Your task to perform on an android device: change keyboard looks Image 0: 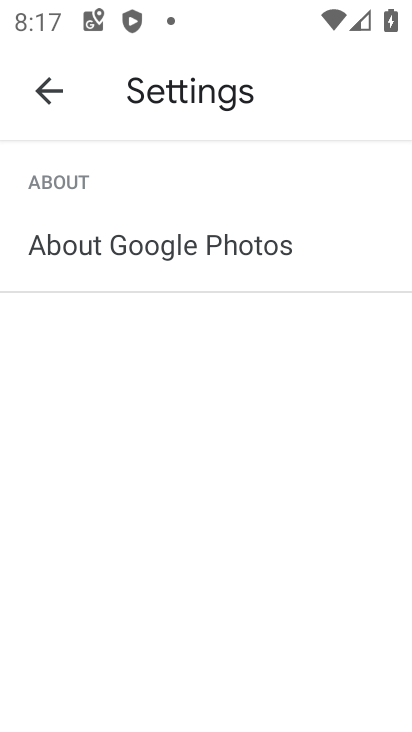
Step 0: press home button
Your task to perform on an android device: change keyboard looks Image 1: 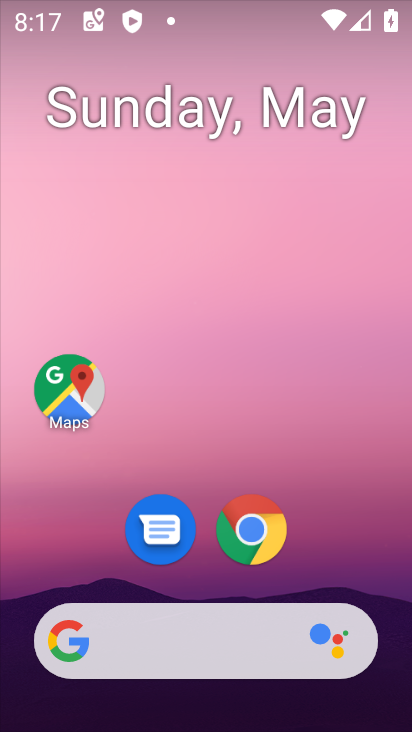
Step 1: drag from (359, 598) to (367, 4)
Your task to perform on an android device: change keyboard looks Image 2: 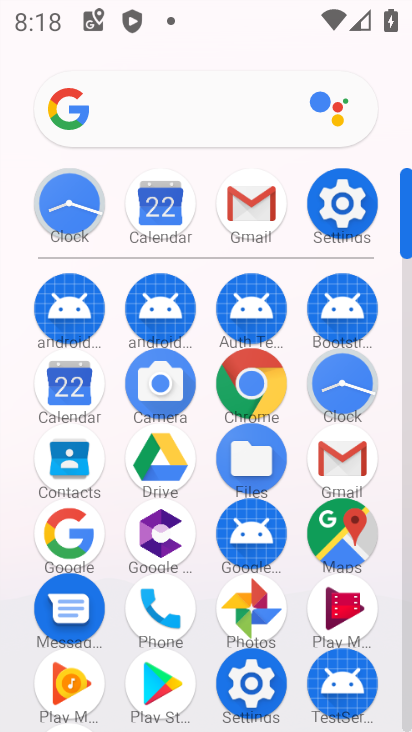
Step 2: click (344, 212)
Your task to perform on an android device: change keyboard looks Image 3: 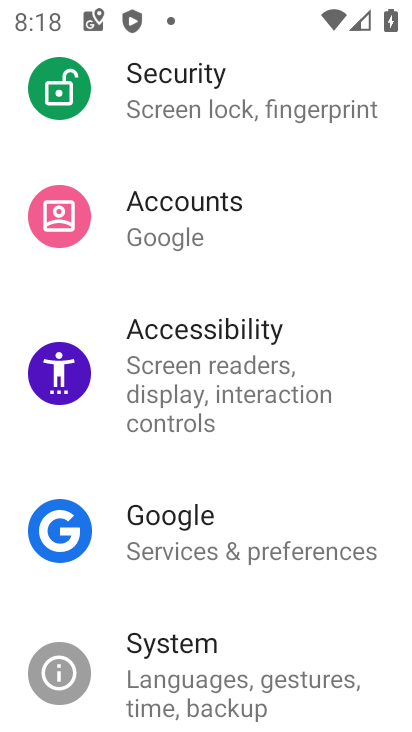
Step 3: click (188, 684)
Your task to perform on an android device: change keyboard looks Image 4: 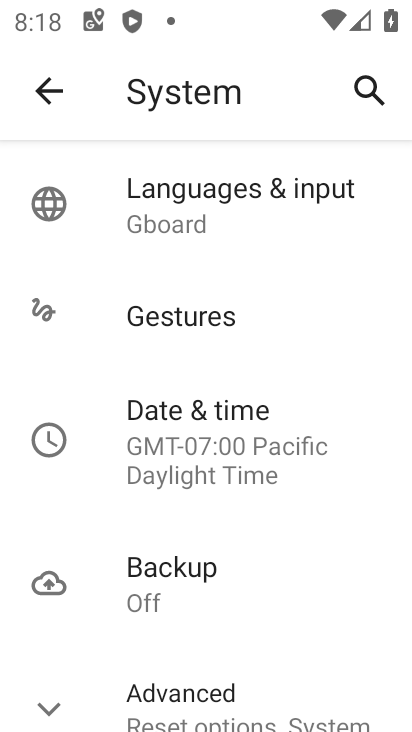
Step 4: click (189, 203)
Your task to perform on an android device: change keyboard looks Image 5: 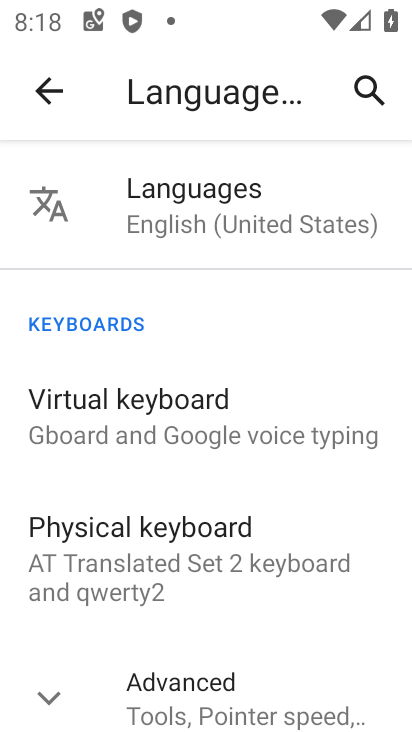
Step 5: click (177, 403)
Your task to perform on an android device: change keyboard looks Image 6: 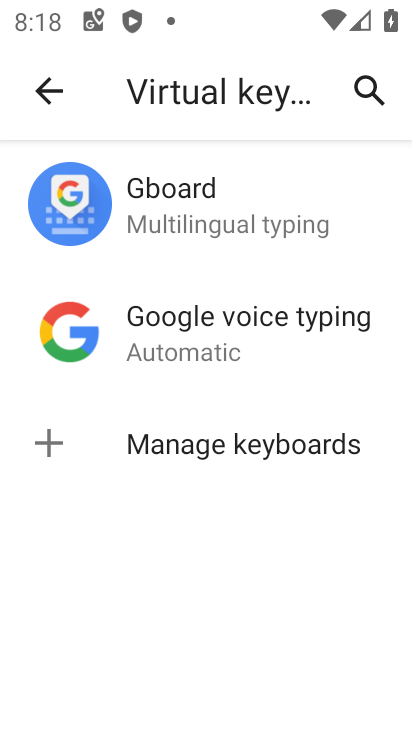
Step 6: click (147, 212)
Your task to perform on an android device: change keyboard looks Image 7: 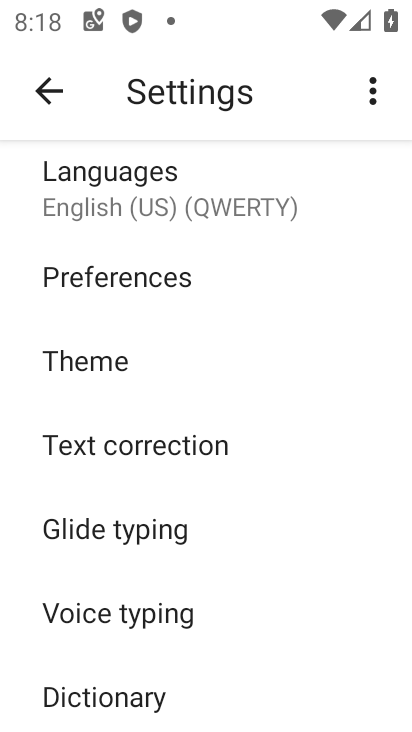
Step 7: click (82, 373)
Your task to perform on an android device: change keyboard looks Image 8: 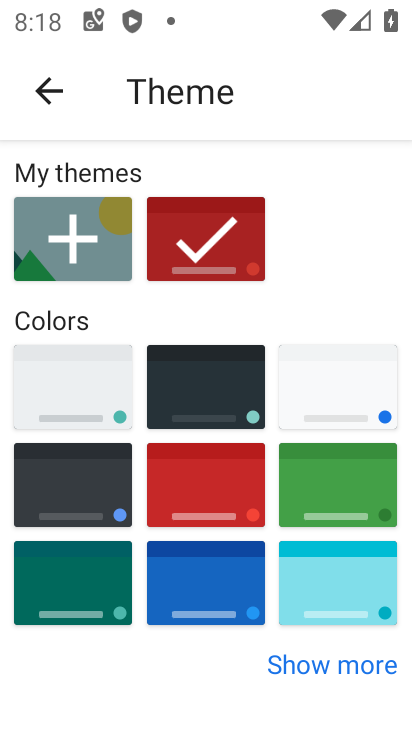
Step 8: click (313, 571)
Your task to perform on an android device: change keyboard looks Image 9: 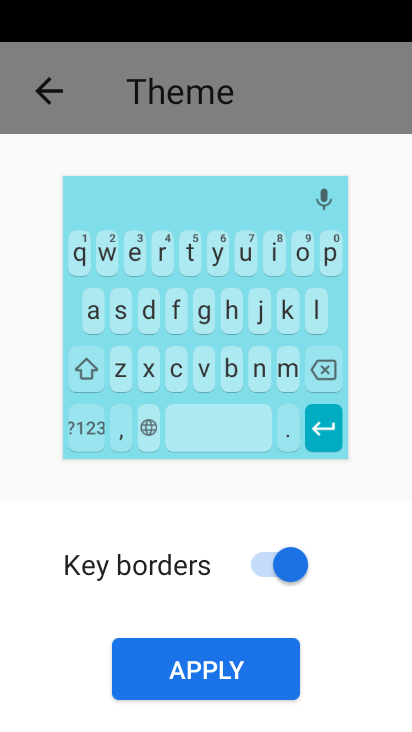
Step 9: click (243, 671)
Your task to perform on an android device: change keyboard looks Image 10: 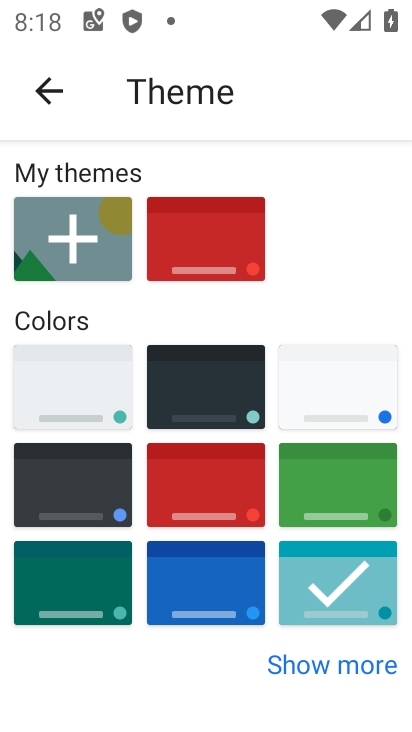
Step 10: task complete